Your task to perform on an android device: see creations saved in the google photos Image 0: 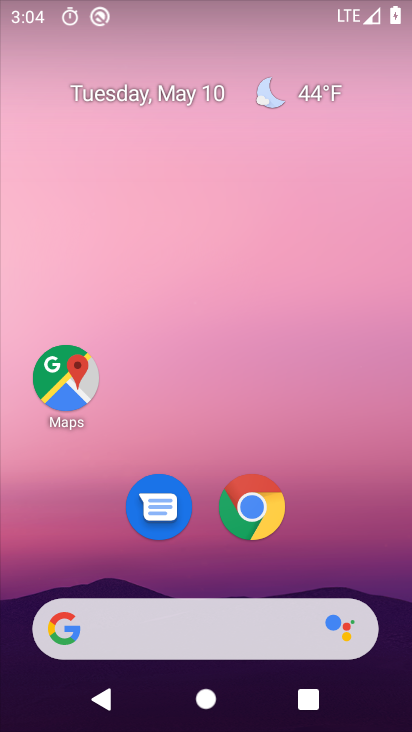
Step 0: drag from (241, 597) to (241, 144)
Your task to perform on an android device: see creations saved in the google photos Image 1: 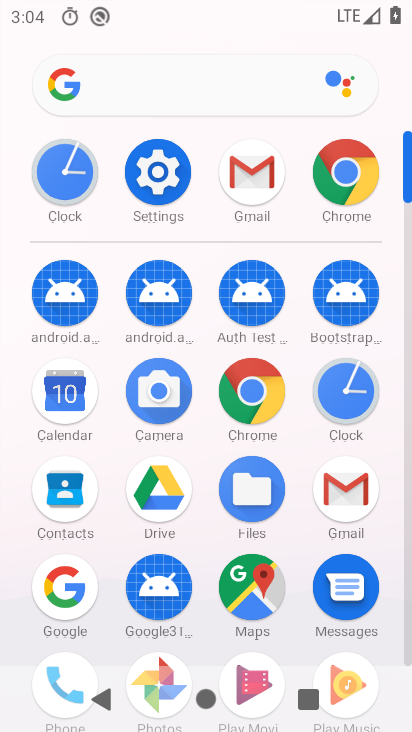
Step 1: drag from (193, 592) to (182, 301)
Your task to perform on an android device: see creations saved in the google photos Image 2: 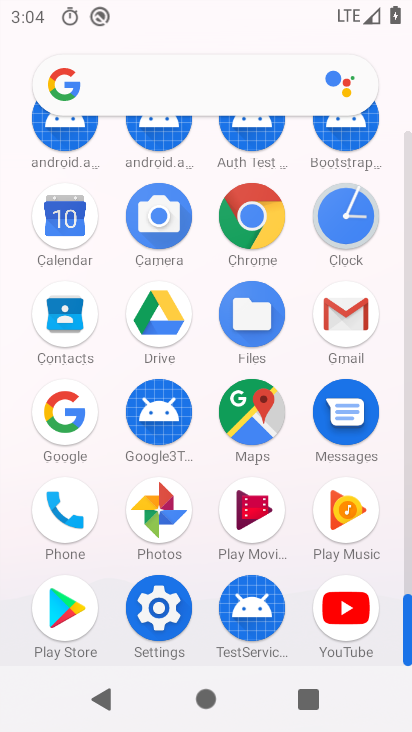
Step 2: click (153, 514)
Your task to perform on an android device: see creations saved in the google photos Image 3: 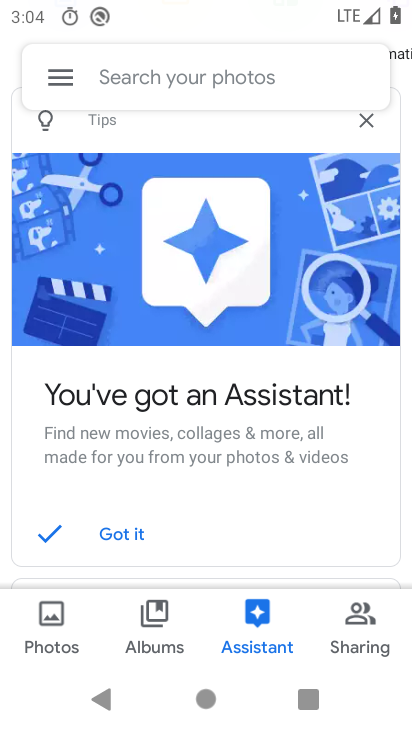
Step 3: drag from (241, 514) to (235, 179)
Your task to perform on an android device: see creations saved in the google photos Image 4: 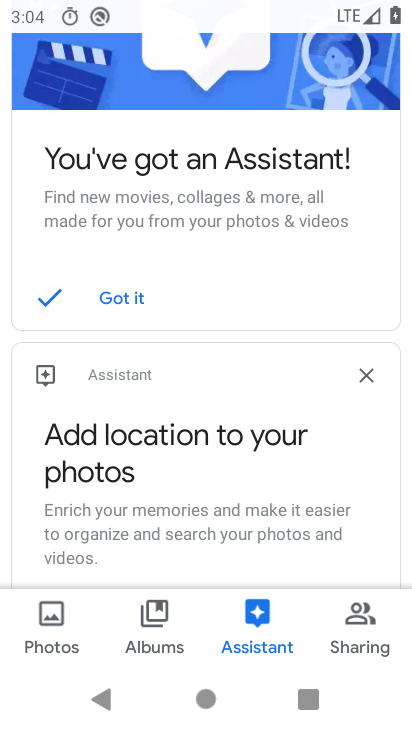
Step 4: drag from (247, 487) to (236, 174)
Your task to perform on an android device: see creations saved in the google photos Image 5: 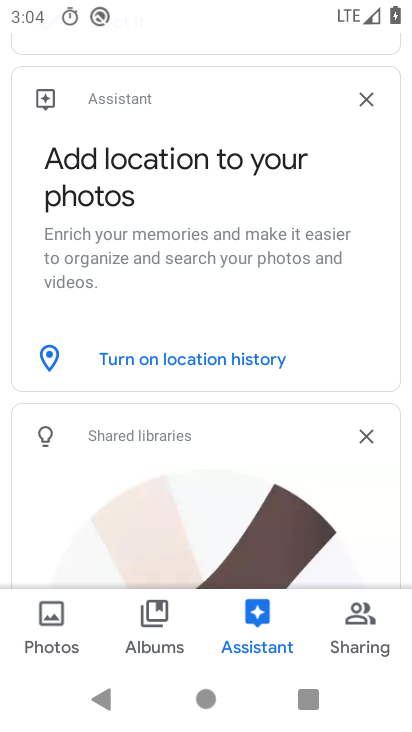
Step 5: drag from (241, 538) to (238, 192)
Your task to perform on an android device: see creations saved in the google photos Image 6: 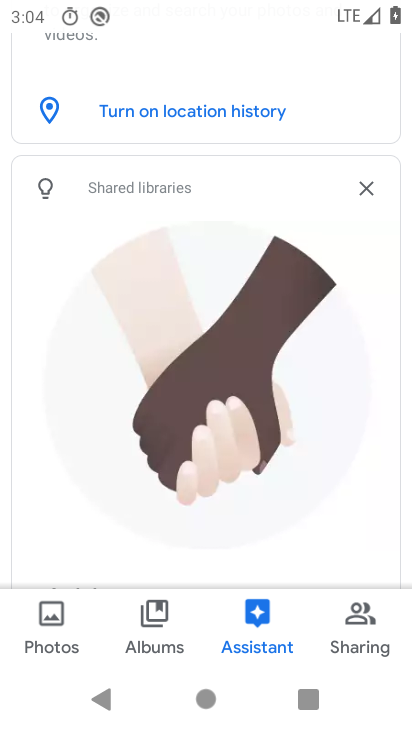
Step 6: drag from (108, 470) to (117, 177)
Your task to perform on an android device: see creations saved in the google photos Image 7: 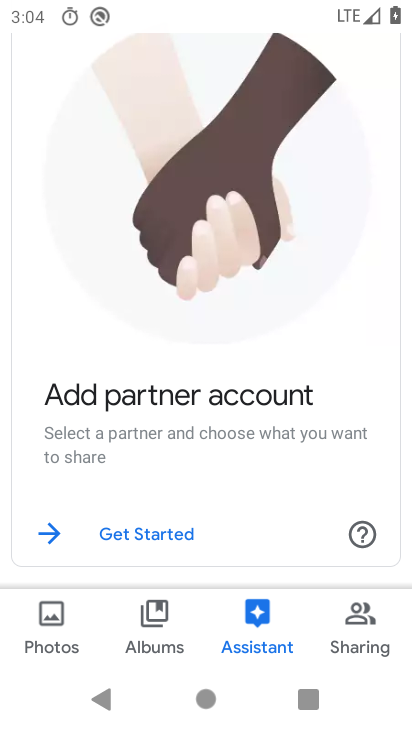
Step 7: click (130, 638)
Your task to perform on an android device: see creations saved in the google photos Image 8: 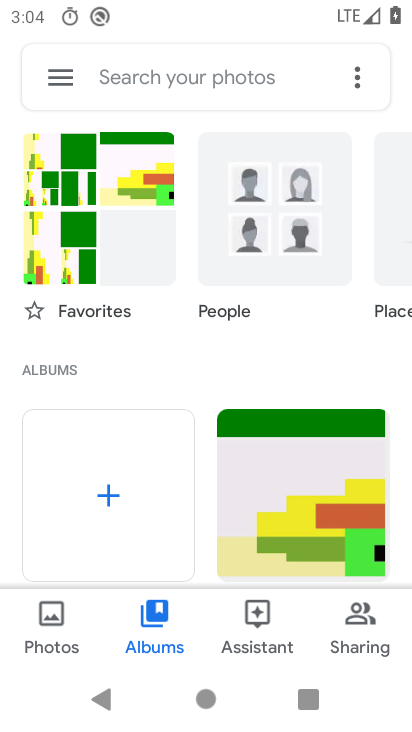
Step 8: task complete